Your task to perform on an android device: open app "Google Chat" (install if not already installed) Image 0: 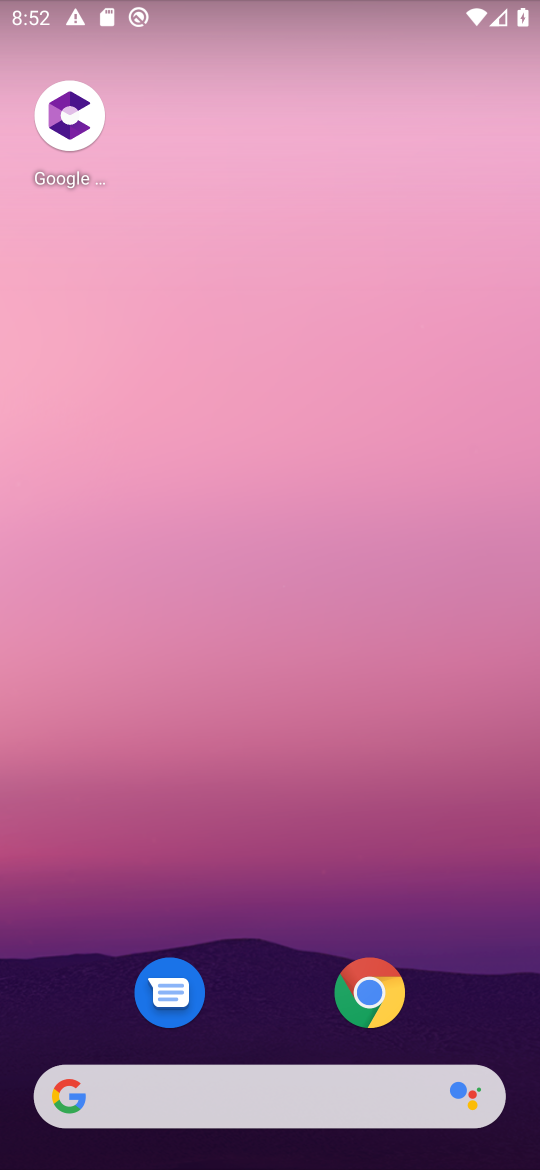
Step 0: drag from (239, 1111) to (250, 212)
Your task to perform on an android device: open app "Google Chat" (install if not already installed) Image 1: 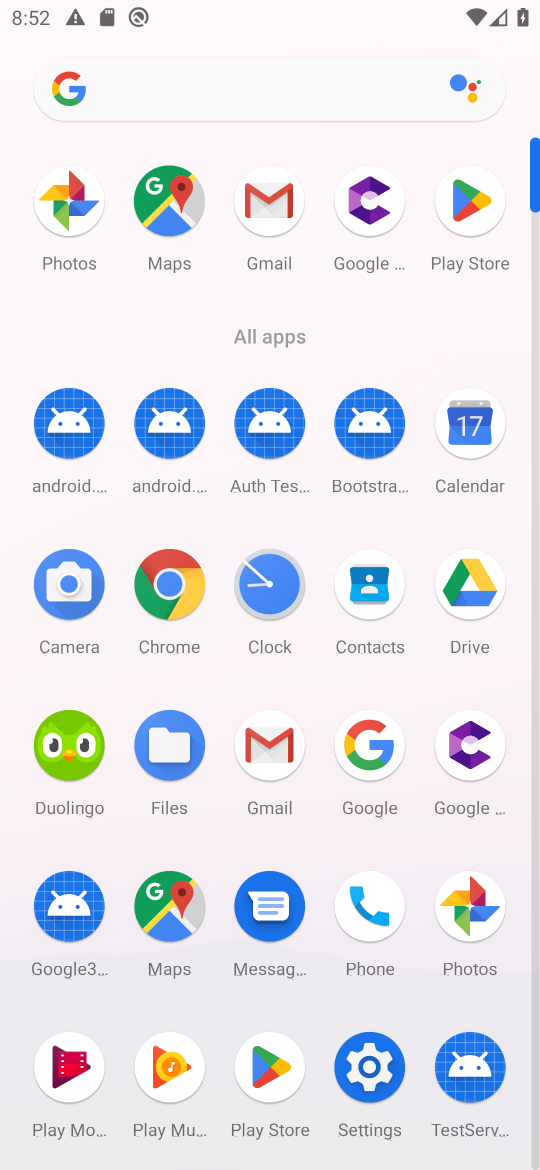
Step 1: click (465, 205)
Your task to perform on an android device: open app "Google Chat" (install if not already installed) Image 2: 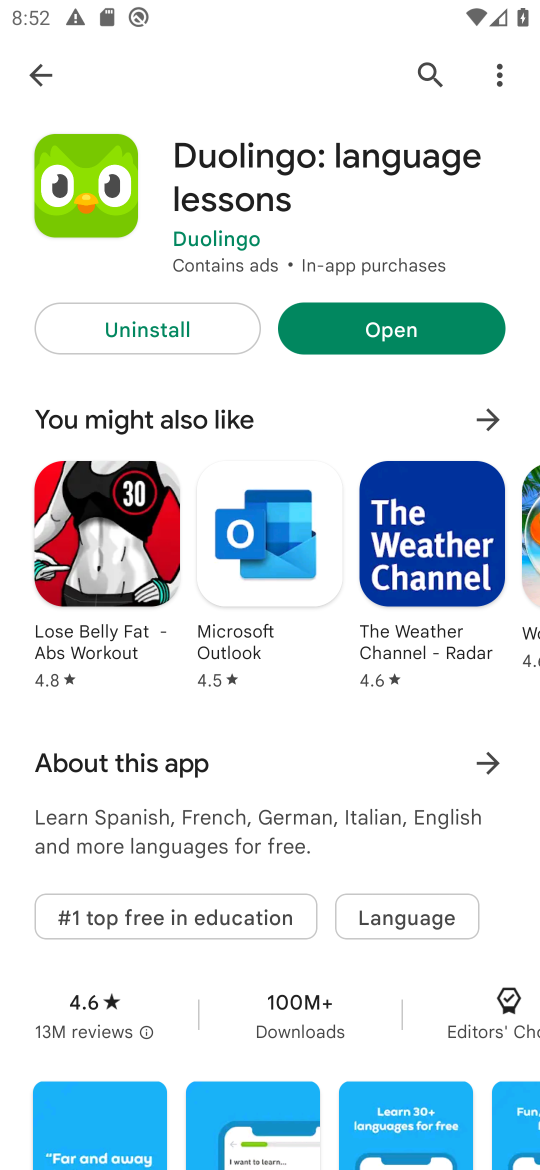
Step 2: press back button
Your task to perform on an android device: open app "Google Chat" (install if not already installed) Image 3: 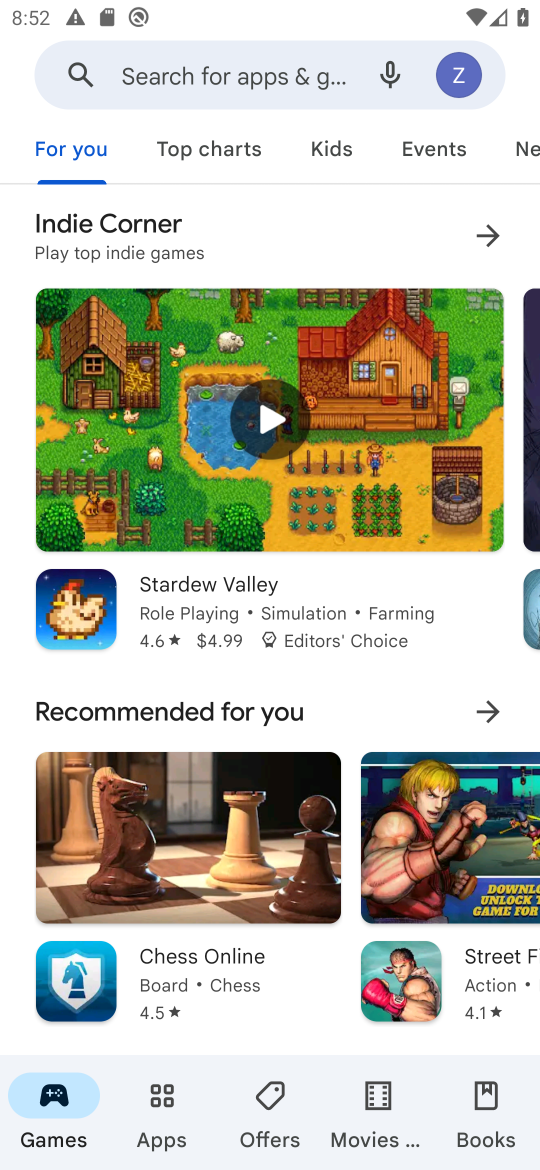
Step 3: click (252, 88)
Your task to perform on an android device: open app "Google Chat" (install if not already installed) Image 4: 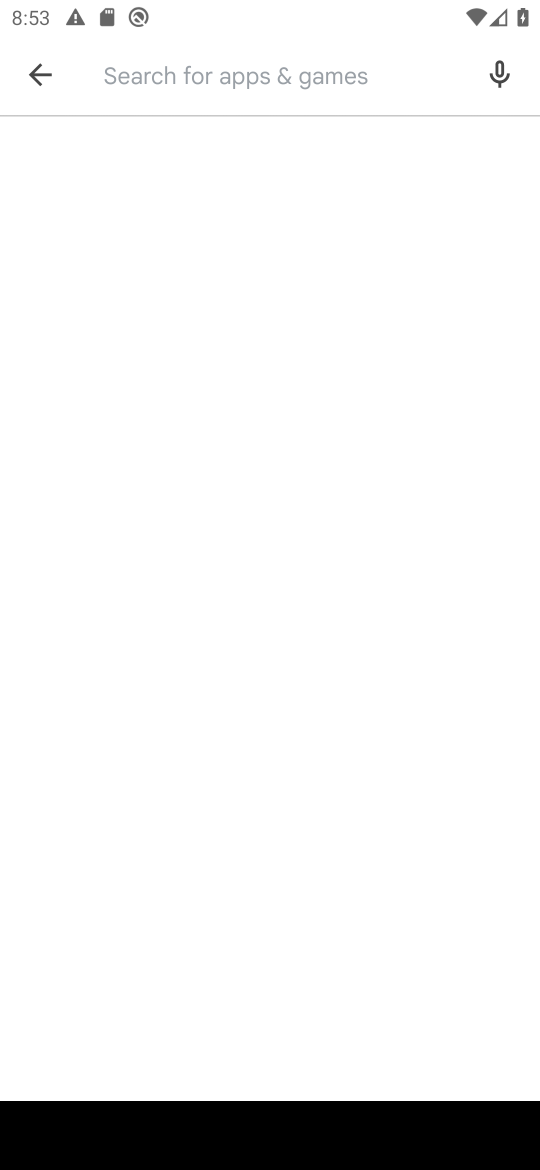
Step 4: type "Google Chat"
Your task to perform on an android device: open app "Google Chat" (install if not already installed) Image 5: 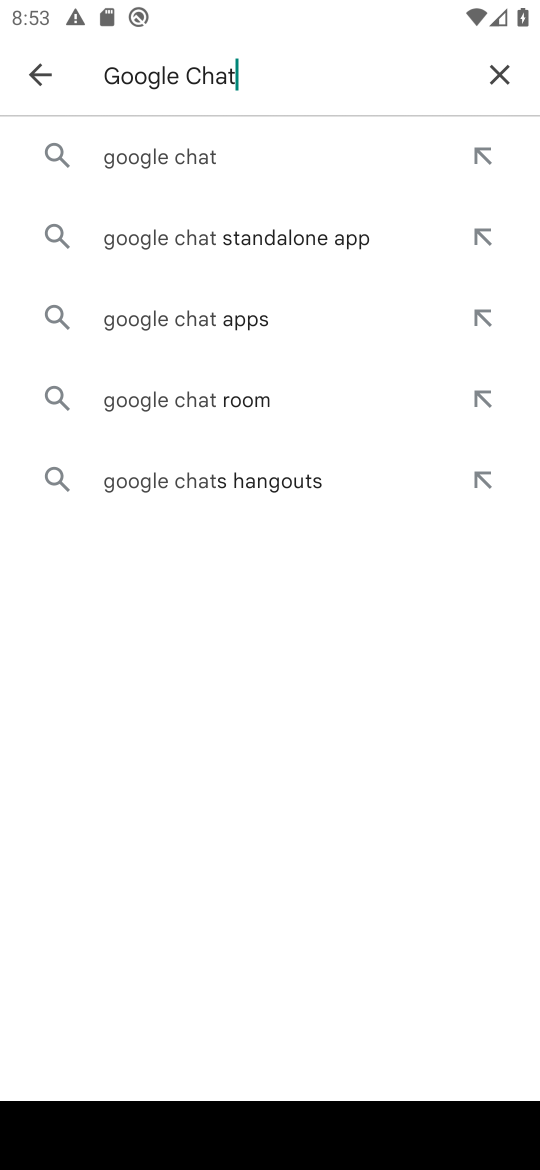
Step 5: click (134, 151)
Your task to perform on an android device: open app "Google Chat" (install if not already installed) Image 6: 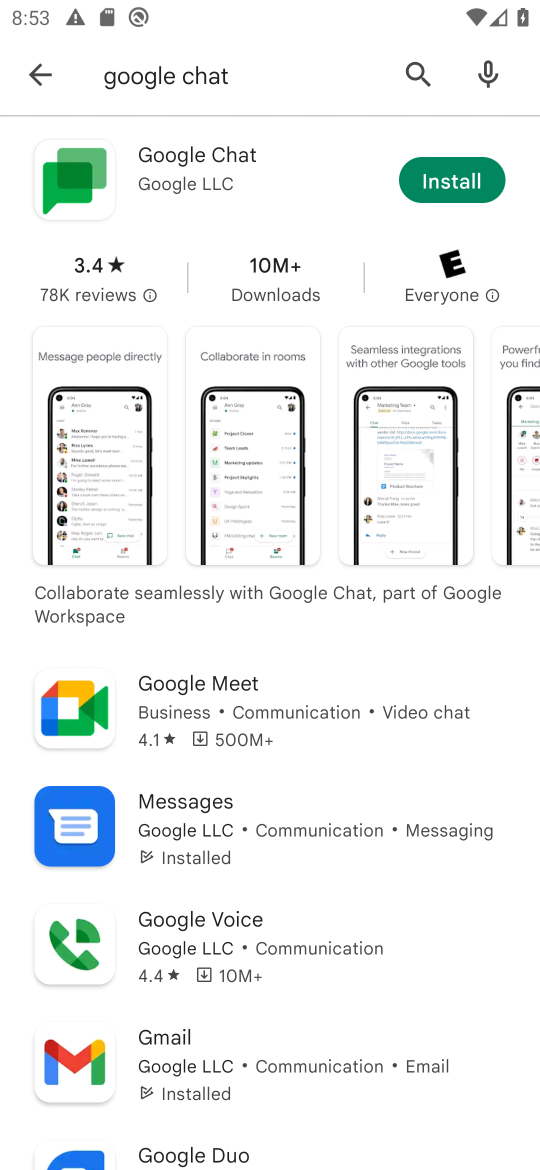
Step 6: click (433, 176)
Your task to perform on an android device: open app "Google Chat" (install if not already installed) Image 7: 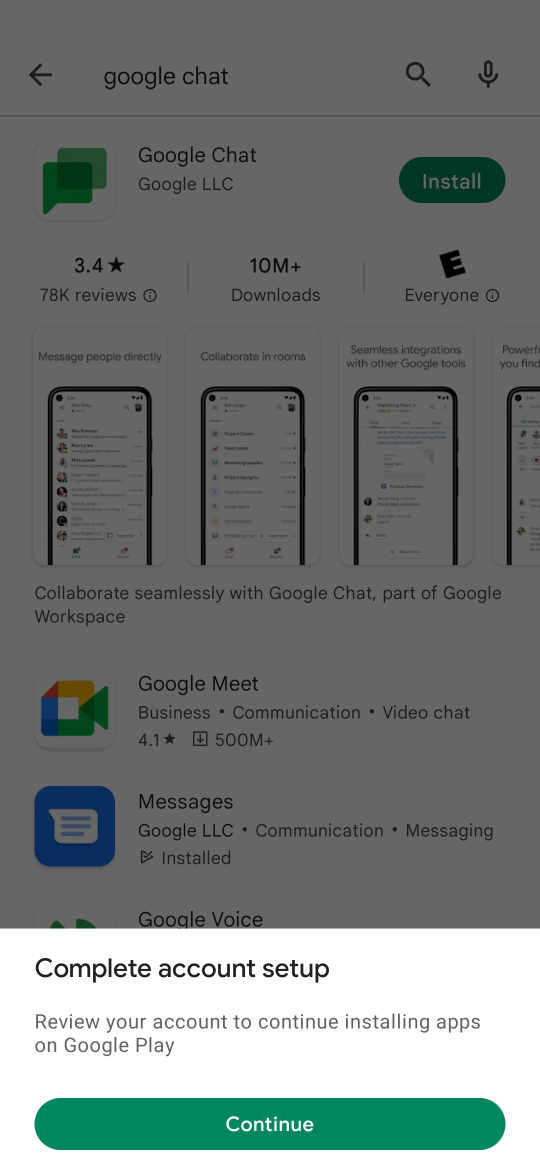
Step 7: click (239, 1139)
Your task to perform on an android device: open app "Google Chat" (install if not already installed) Image 8: 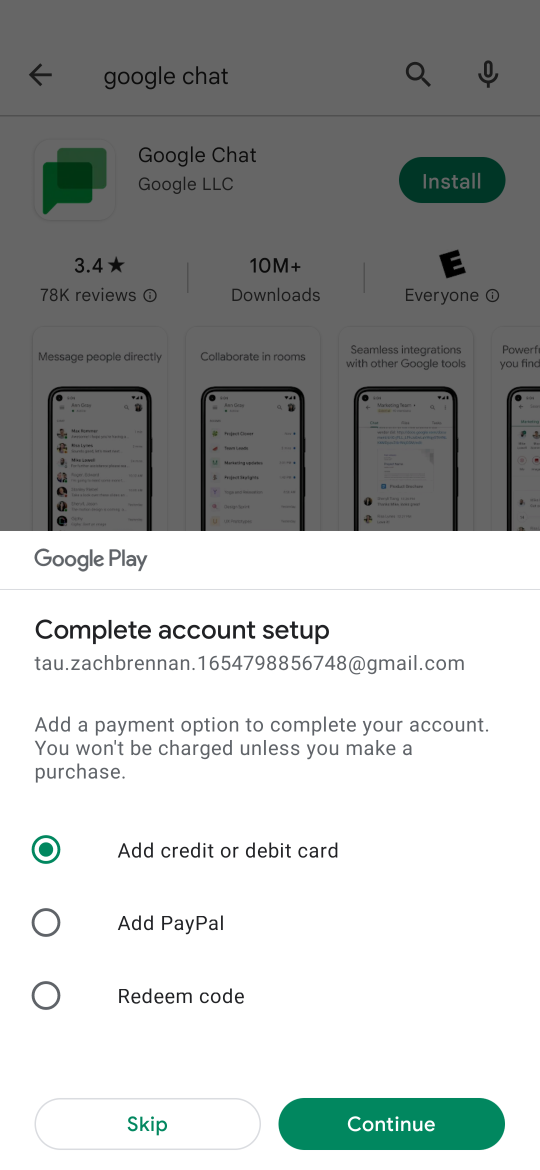
Step 8: click (137, 1111)
Your task to perform on an android device: open app "Google Chat" (install if not already installed) Image 9: 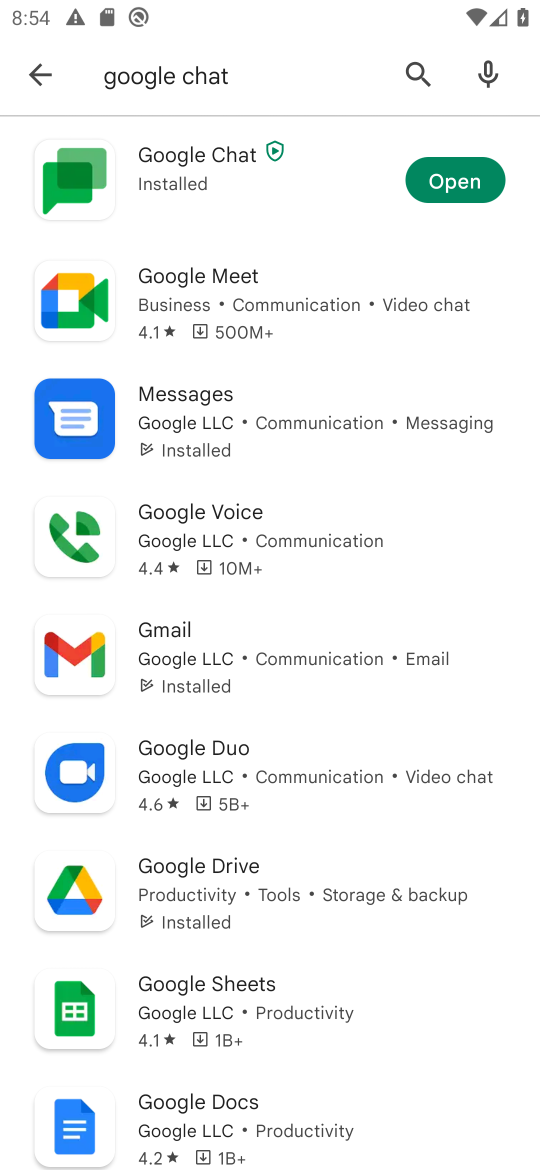
Step 9: click (461, 169)
Your task to perform on an android device: open app "Google Chat" (install if not already installed) Image 10: 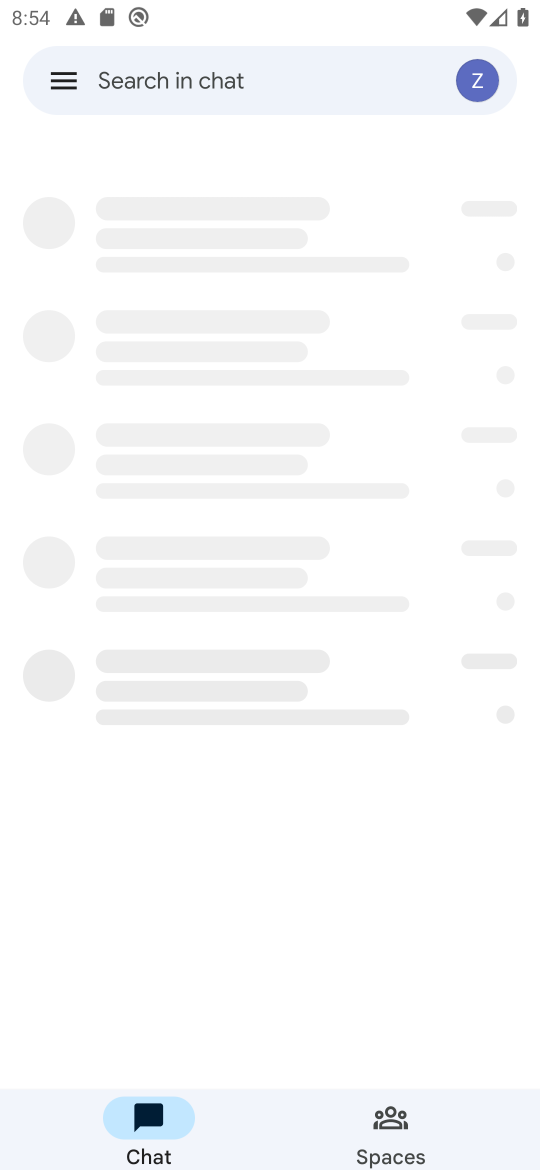
Step 10: task complete